Your task to perform on an android device: add a contact in the contacts app Image 0: 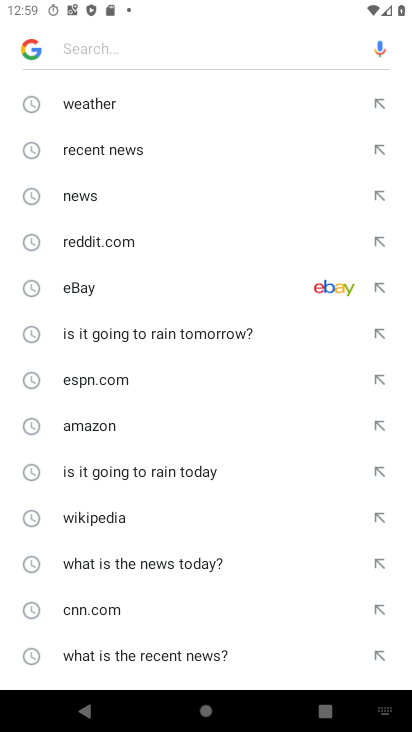
Step 0: press home button
Your task to perform on an android device: add a contact in the contacts app Image 1: 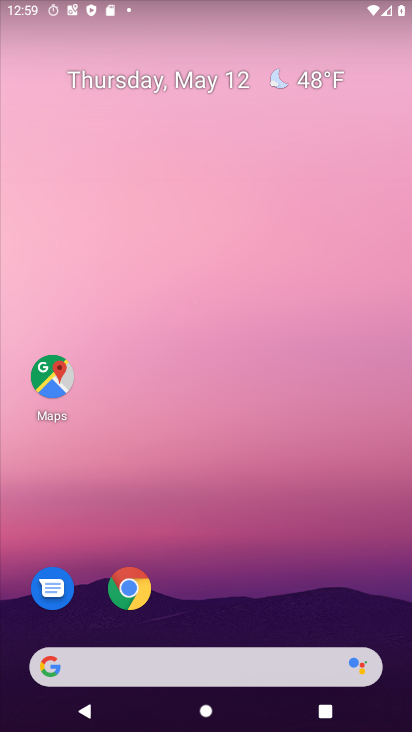
Step 1: drag from (227, 596) to (233, 80)
Your task to perform on an android device: add a contact in the contacts app Image 2: 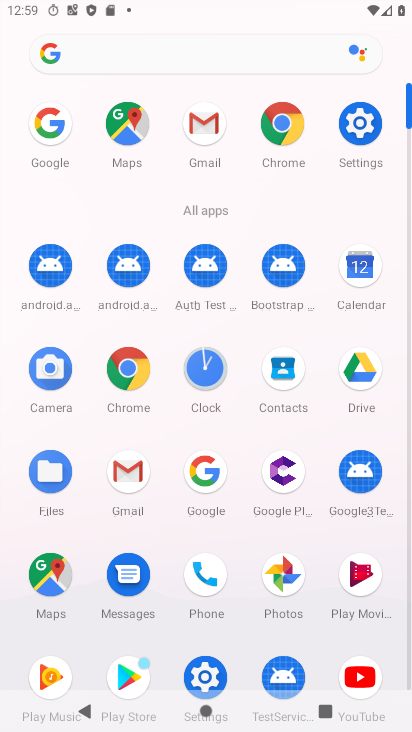
Step 2: click (283, 371)
Your task to perform on an android device: add a contact in the contacts app Image 3: 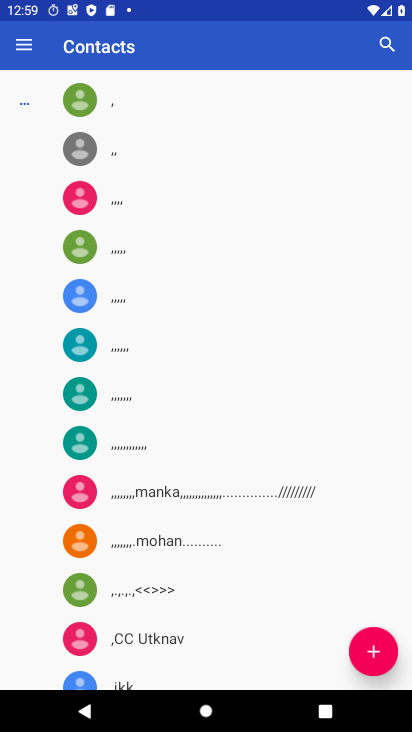
Step 3: click (380, 643)
Your task to perform on an android device: add a contact in the contacts app Image 4: 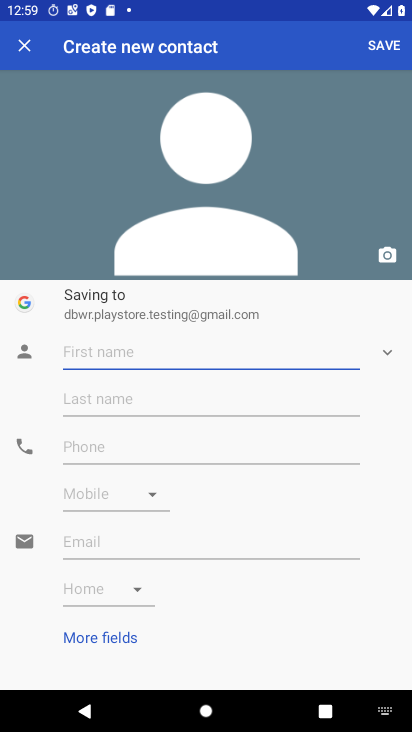
Step 4: type "jfje"
Your task to perform on an android device: add a contact in the contacts app Image 5: 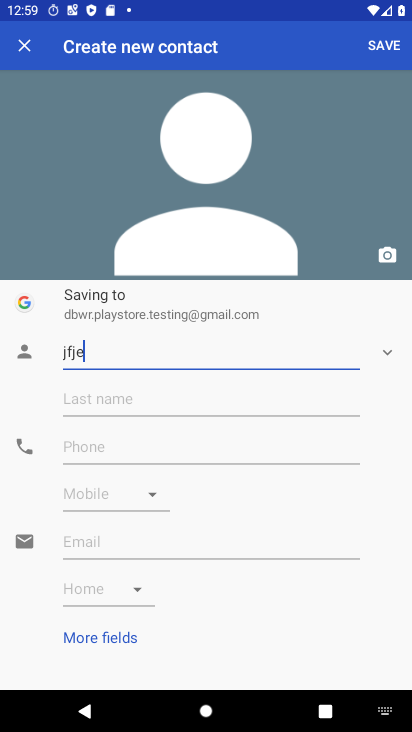
Step 5: click (380, 49)
Your task to perform on an android device: add a contact in the contacts app Image 6: 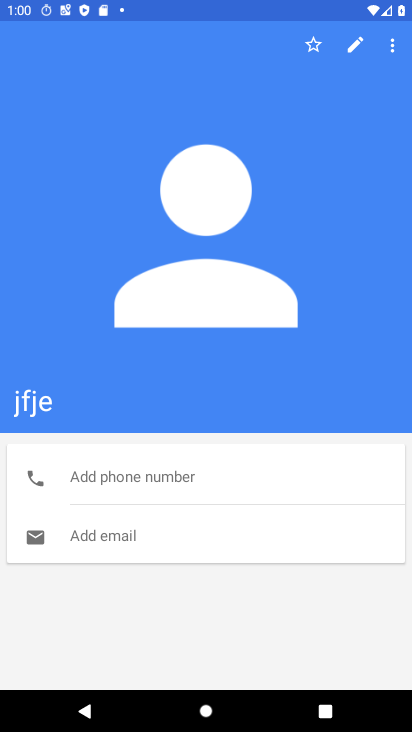
Step 6: task complete